Your task to perform on an android device: see tabs open on other devices in the chrome app Image 0: 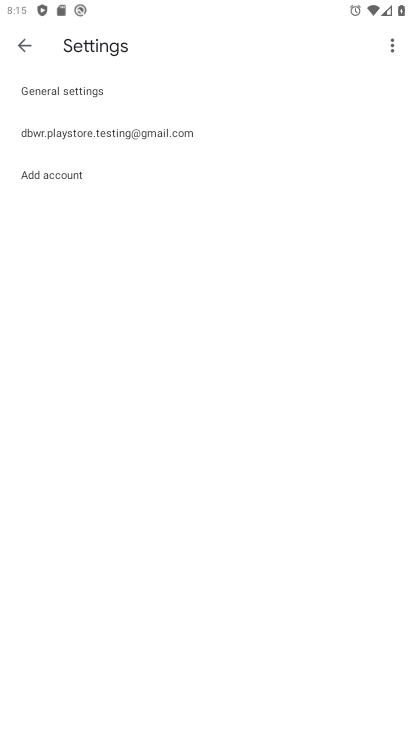
Step 0: press home button
Your task to perform on an android device: see tabs open on other devices in the chrome app Image 1: 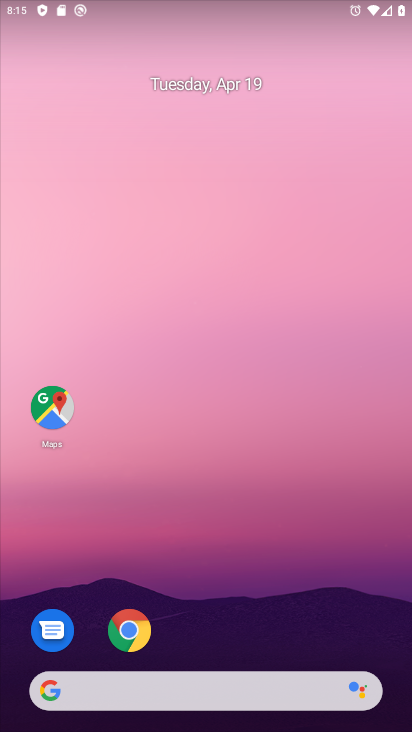
Step 1: drag from (245, 687) to (227, 169)
Your task to perform on an android device: see tabs open on other devices in the chrome app Image 2: 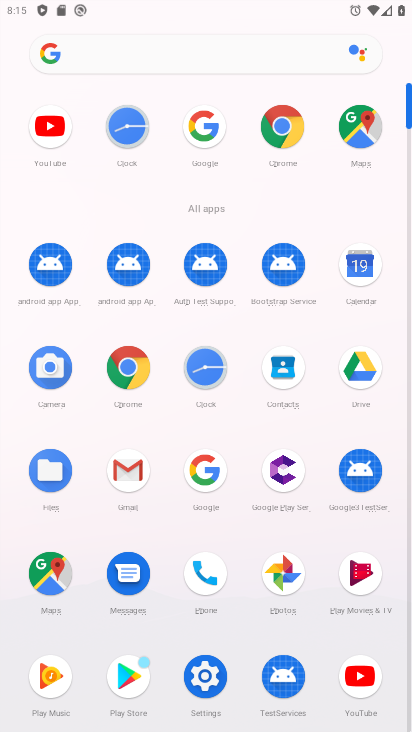
Step 2: click (286, 145)
Your task to perform on an android device: see tabs open on other devices in the chrome app Image 3: 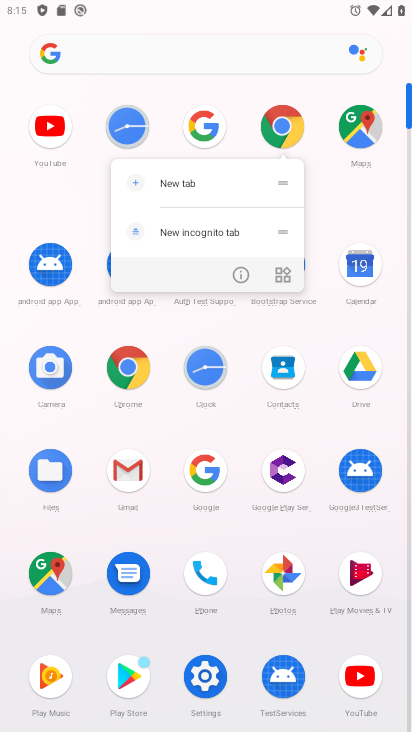
Step 3: click (286, 145)
Your task to perform on an android device: see tabs open on other devices in the chrome app Image 4: 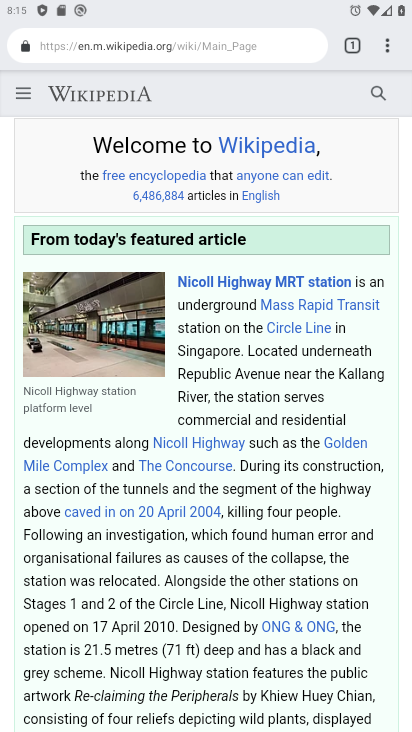
Step 4: task complete